Your task to perform on an android device: open app "Grab" Image 0: 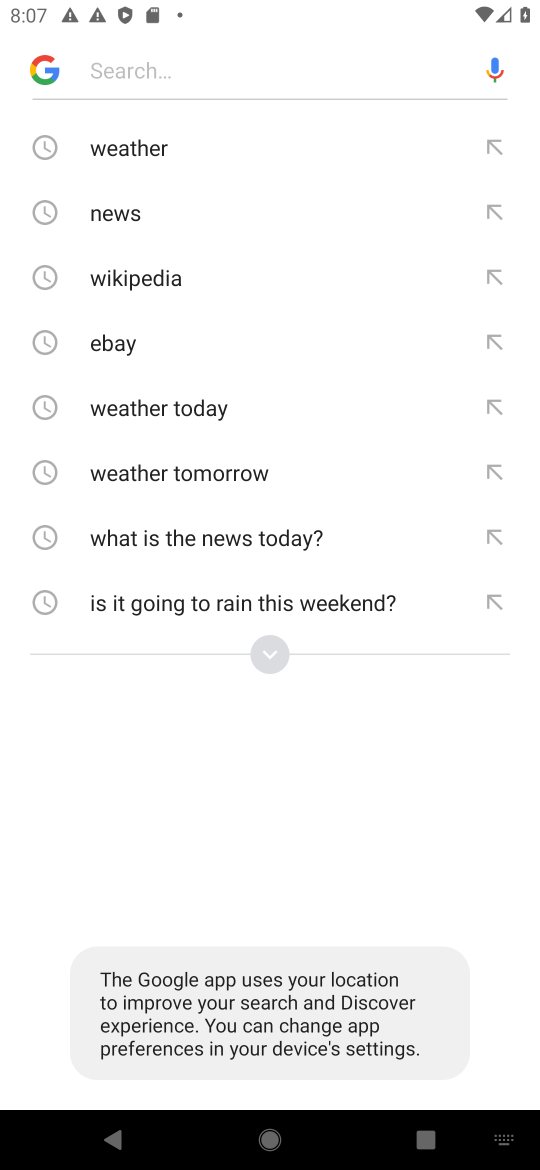
Step 0: press home button
Your task to perform on an android device: open app "Grab" Image 1: 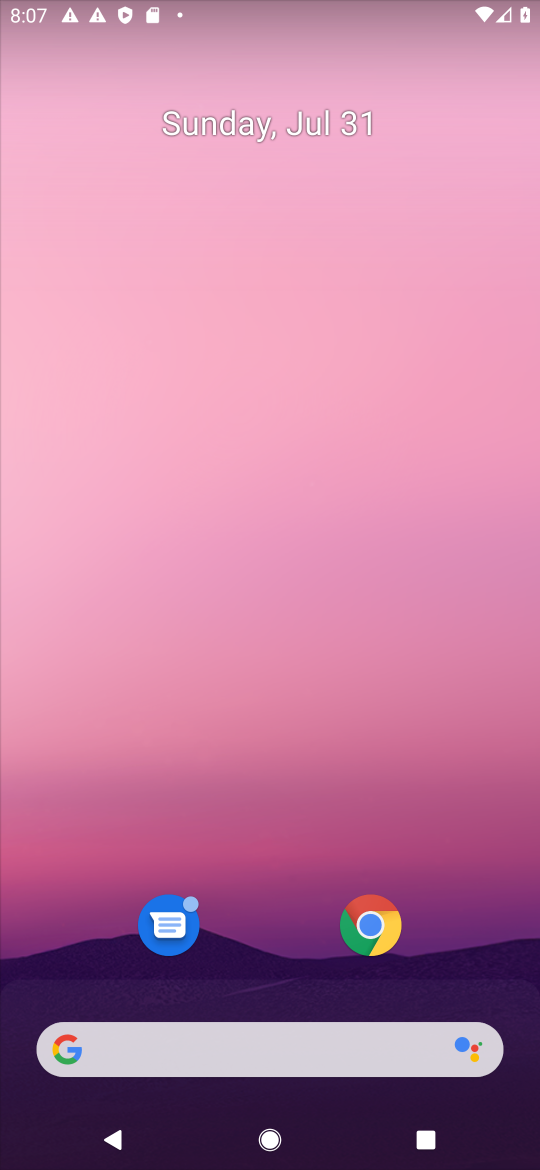
Step 1: drag from (282, 903) to (421, 7)
Your task to perform on an android device: open app "Grab" Image 2: 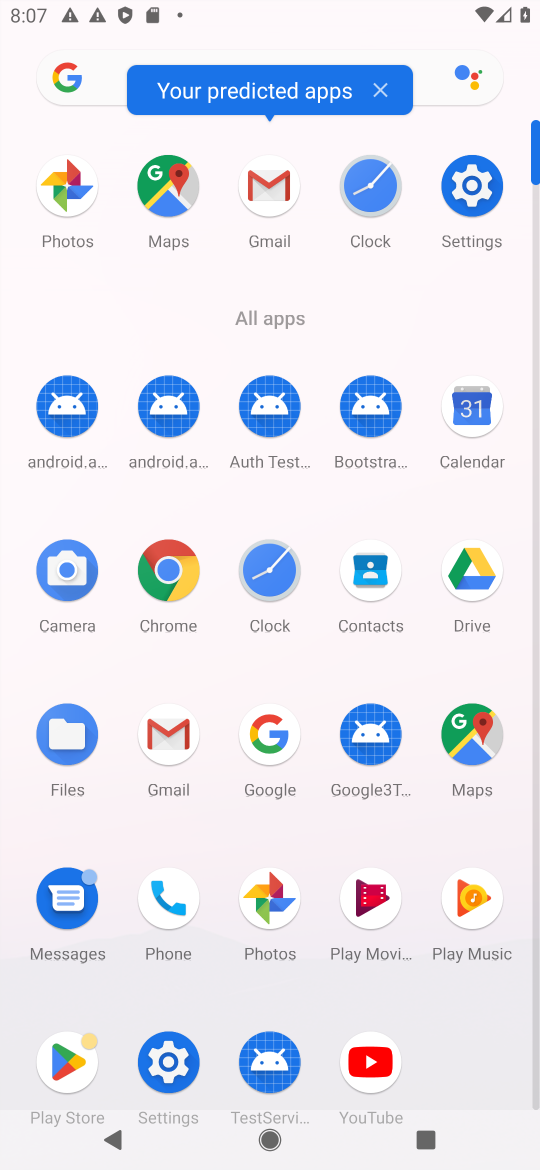
Step 2: click (59, 1059)
Your task to perform on an android device: open app "Grab" Image 3: 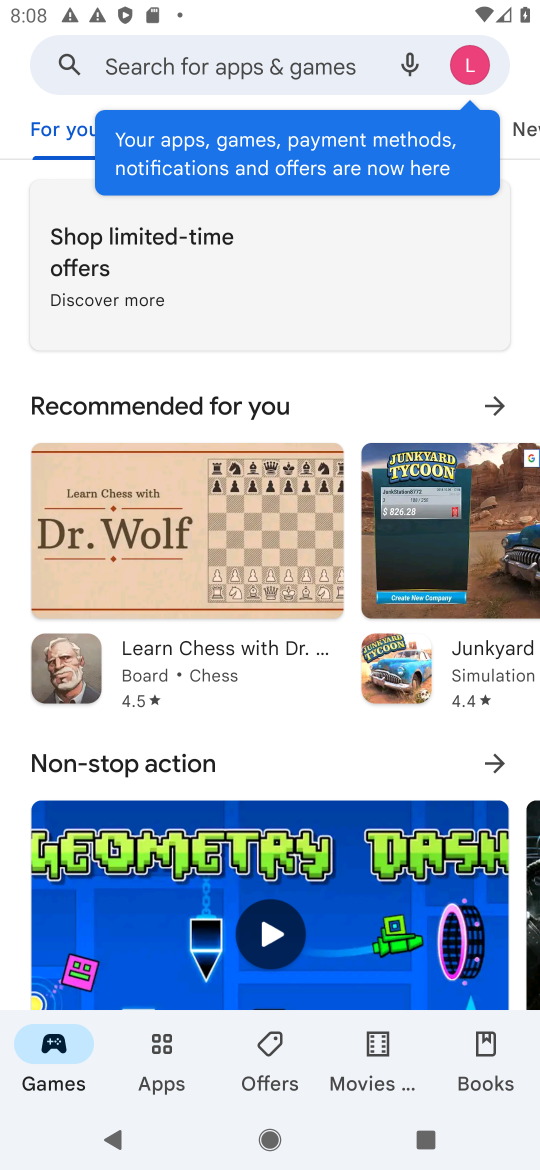
Step 3: click (216, 80)
Your task to perform on an android device: open app "Grab" Image 4: 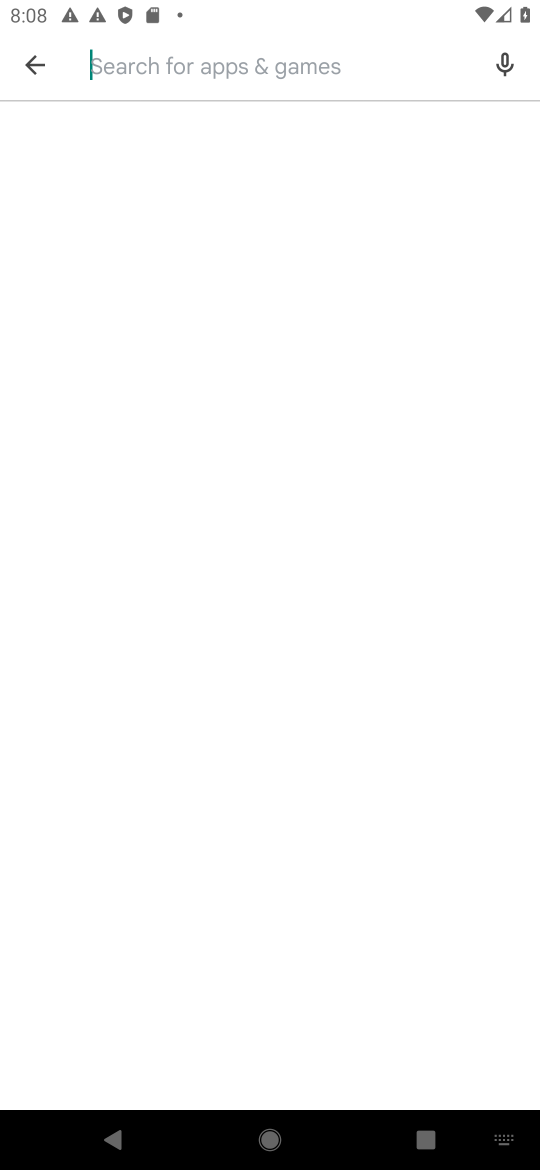
Step 4: type "grab"
Your task to perform on an android device: open app "Grab" Image 5: 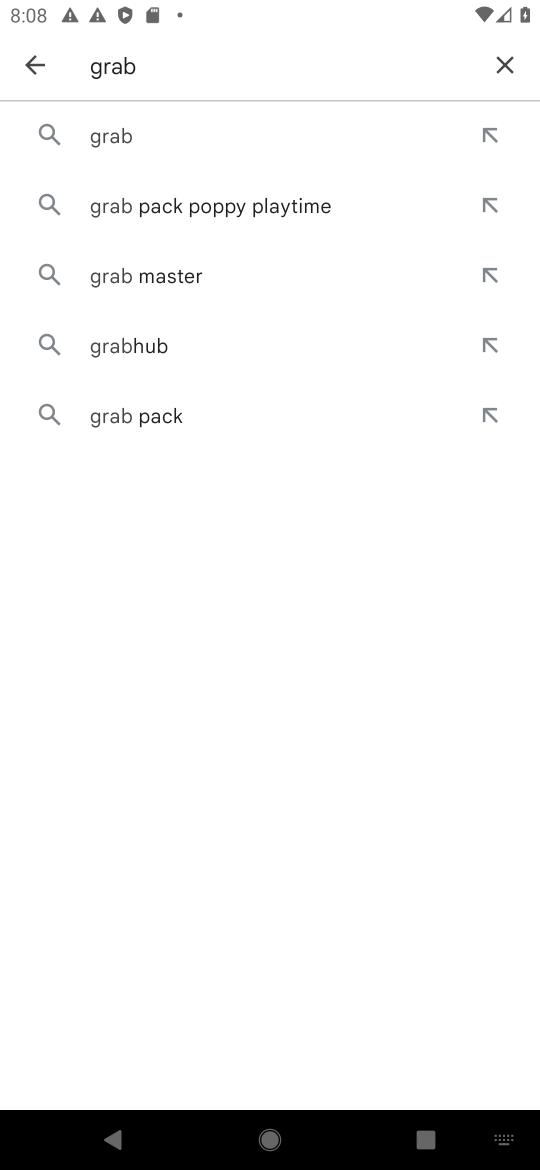
Step 5: click (301, 122)
Your task to perform on an android device: open app "Grab" Image 6: 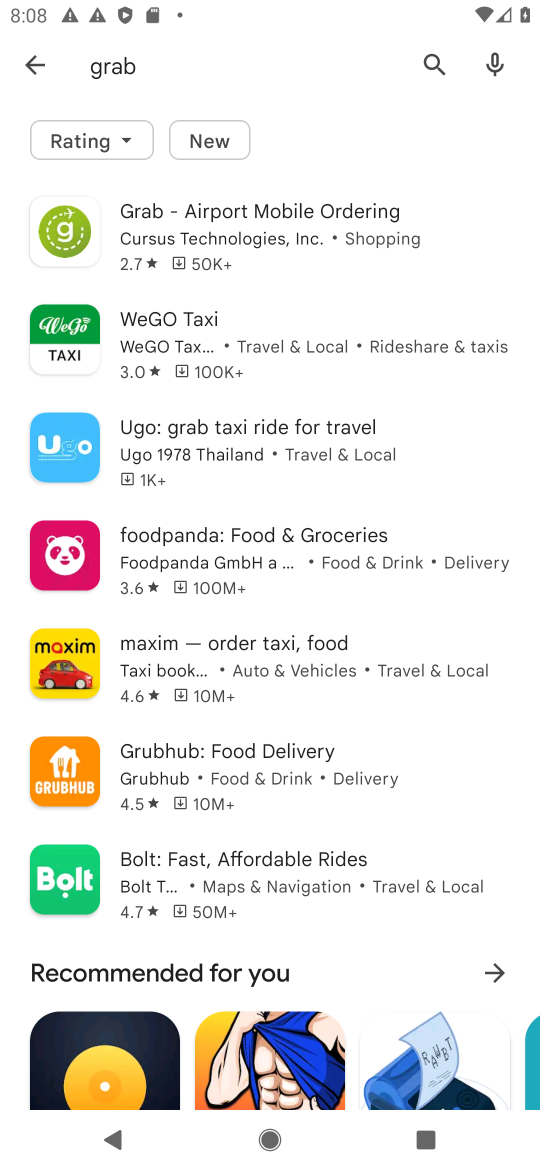
Step 6: click (226, 198)
Your task to perform on an android device: open app "Grab" Image 7: 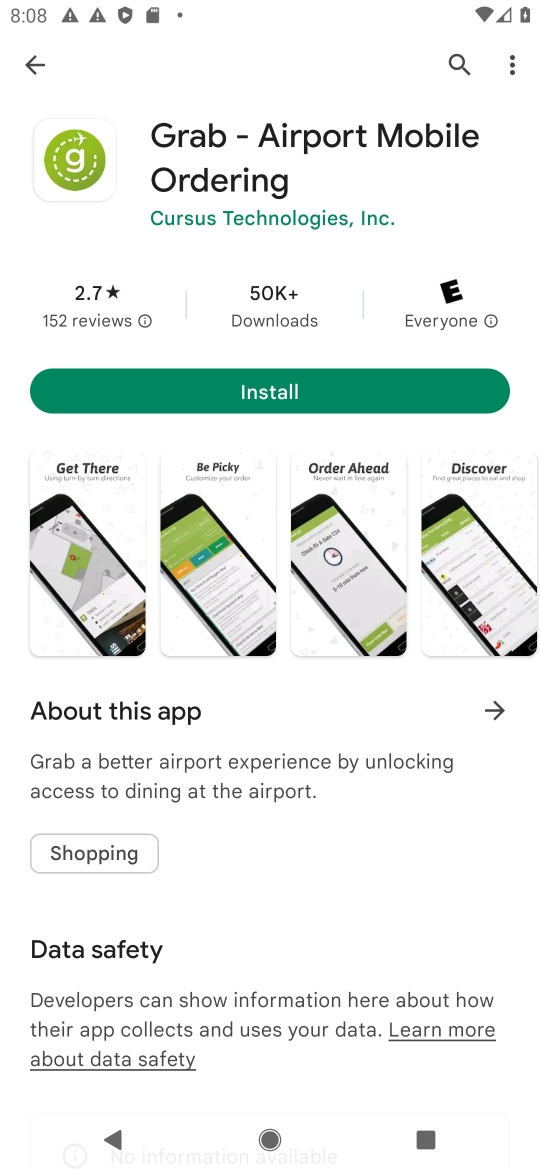
Step 7: task complete